Your task to perform on an android device: Open Google Maps and go to "Timeline" Image 0: 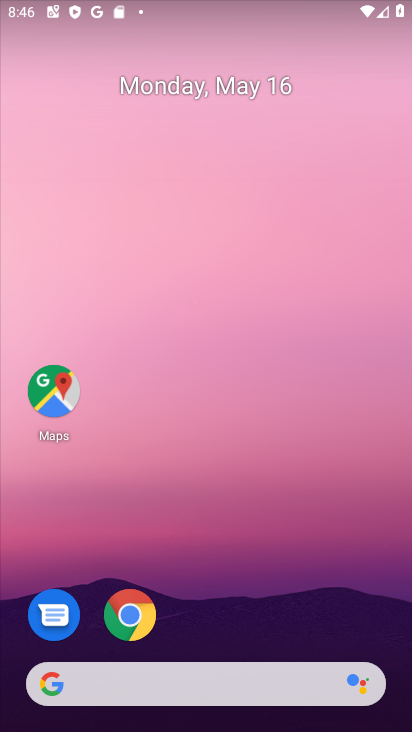
Step 0: click (42, 394)
Your task to perform on an android device: Open Google Maps and go to "Timeline" Image 1: 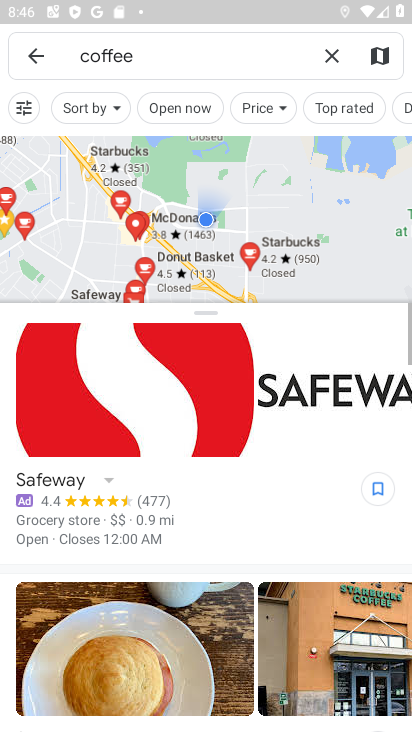
Step 1: click (34, 59)
Your task to perform on an android device: Open Google Maps and go to "Timeline" Image 2: 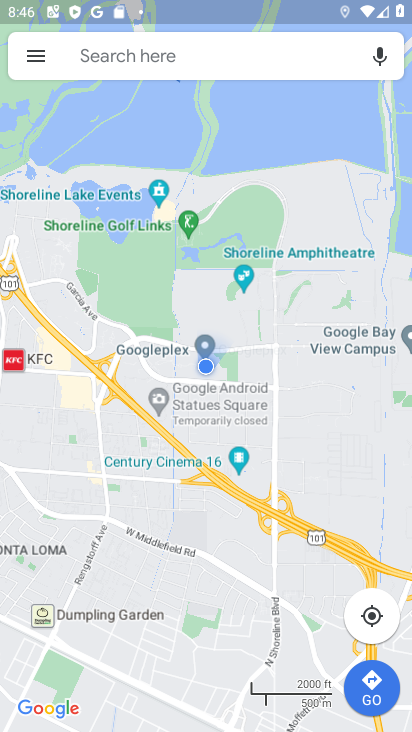
Step 2: click (34, 59)
Your task to perform on an android device: Open Google Maps and go to "Timeline" Image 3: 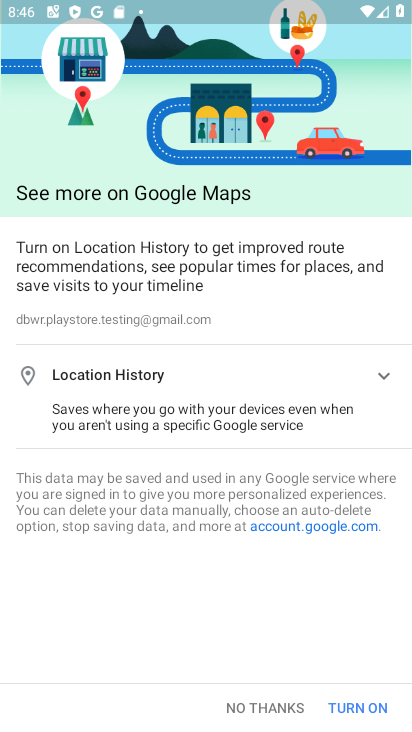
Step 3: click (289, 711)
Your task to perform on an android device: Open Google Maps and go to "Timeline" Image 4: 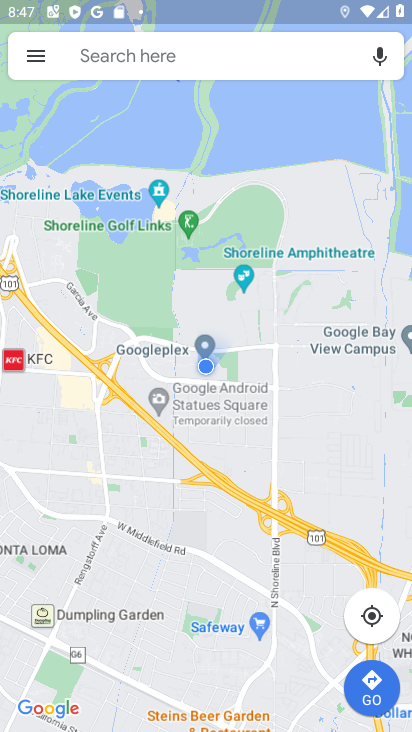
Step 4: click (35, 57)
Your task to perform on an android device: Open Google Maps and go to "Timeline" Image 5: 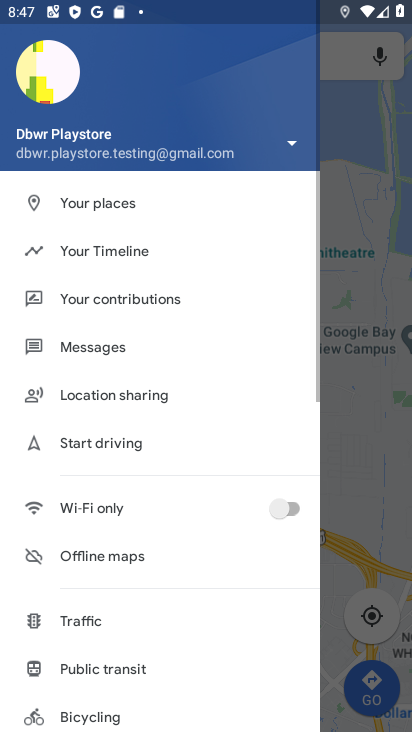
Step 5: click (137, 248)
Your task to perform on an android device: Open Google Maps and go to "Timeline" Image 6: 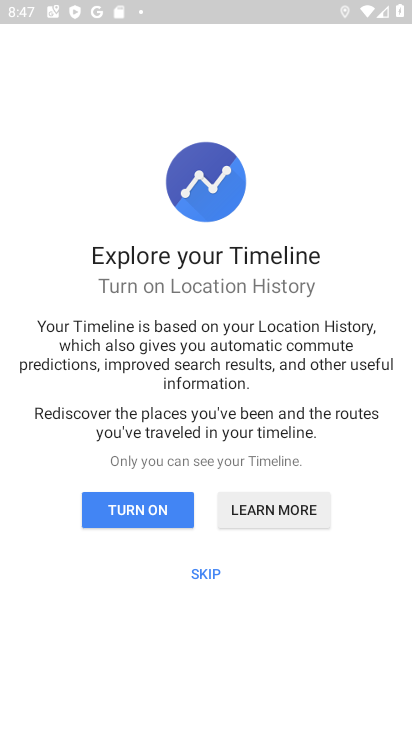
Step 6: click (199, 577)
Your task to perform on an android device: Open Google Maps and go to "Timeline" Image 7: 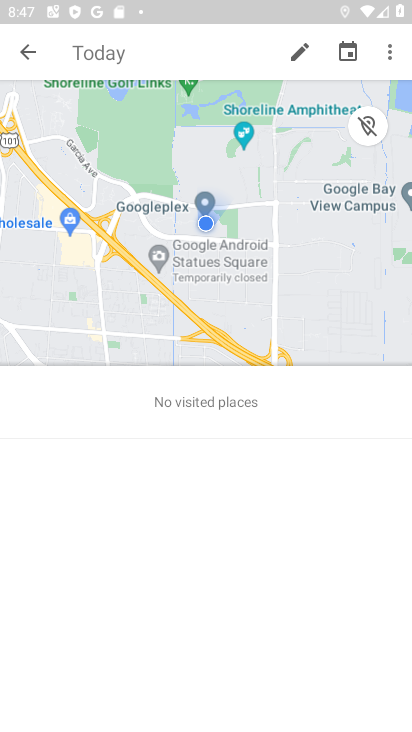
Step 7: task complete